Your task to perform on an android device: change the clock display to digital Image 0: 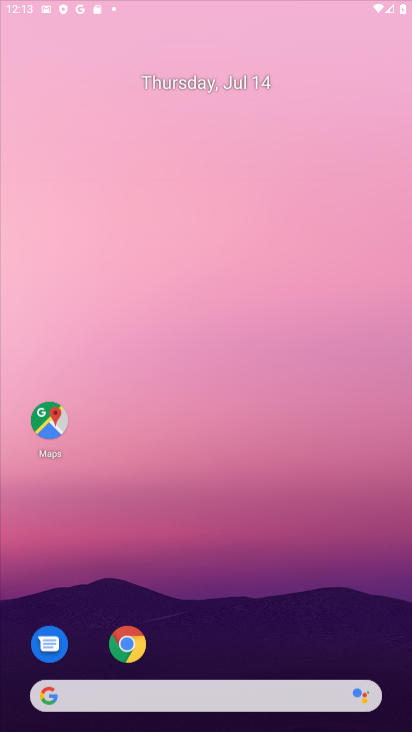
Step 0: click (281, 273)
Your task to perform on an android device: change the clock display to digital Image 1: 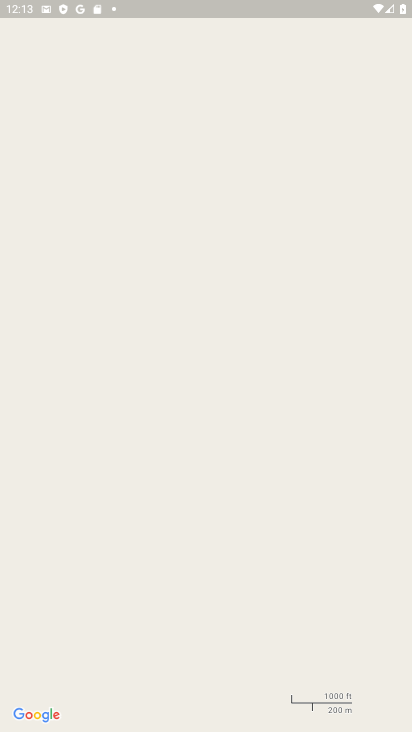
Step 1: press home button
Your task to perform on an android device: change the clock display to digital Image 2: 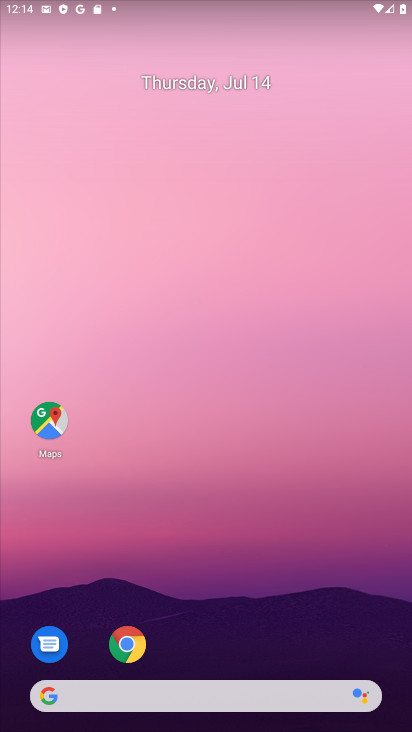
Step 2: drag from (233, 639) to (343, 17)
Your task to perform on an android device: change the clock display to digital Image 3: 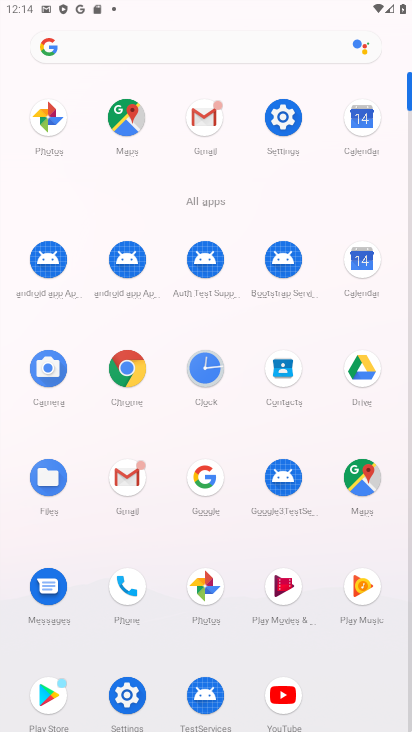
Step 3: click (207, 365)
Your task to perform on an android device: change the clock display to digital Image 4: 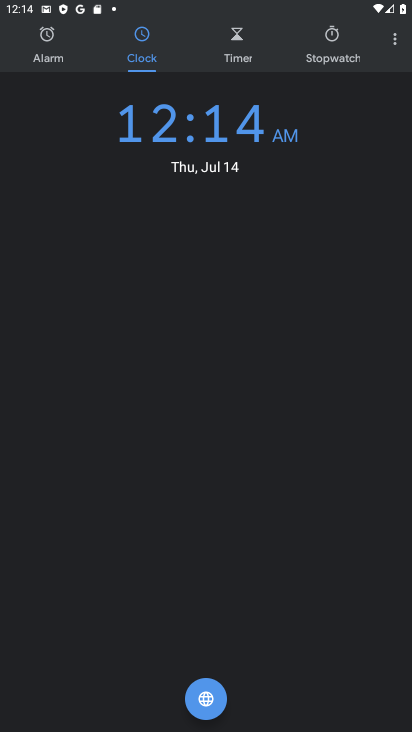
Step 4: click (383, 38)
Your task to perform on an android device: change the clock display to digital Image 5: 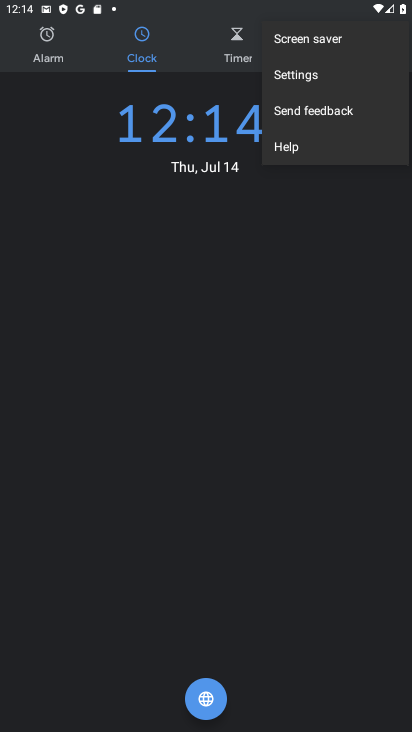
Step 5: click (310, 72)
Your task to perform on an android device: change the clock display to digital Image 6: 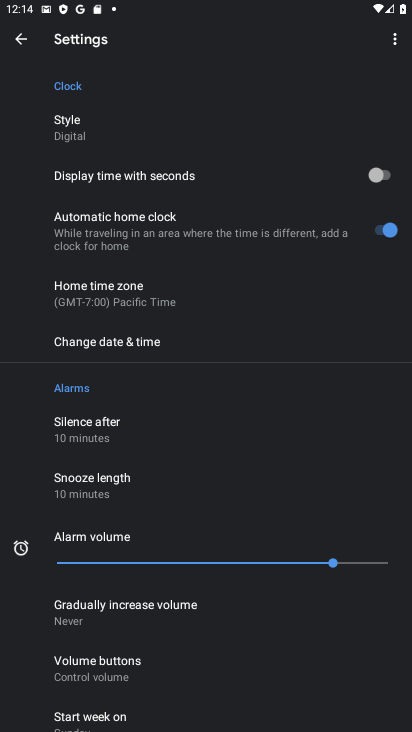
Step 6: click (77, 138)
Your task to perform on an android device: change the clock display to digital Image 7: 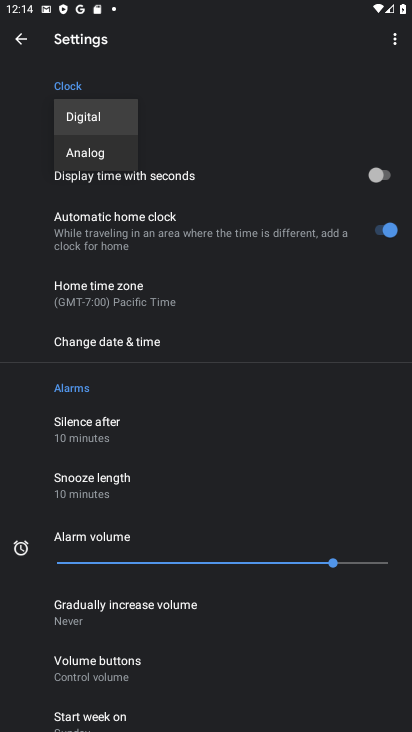
Step 7: click (87, 120)
Your task to perform on an android device: change the clock display to digital Image 8: 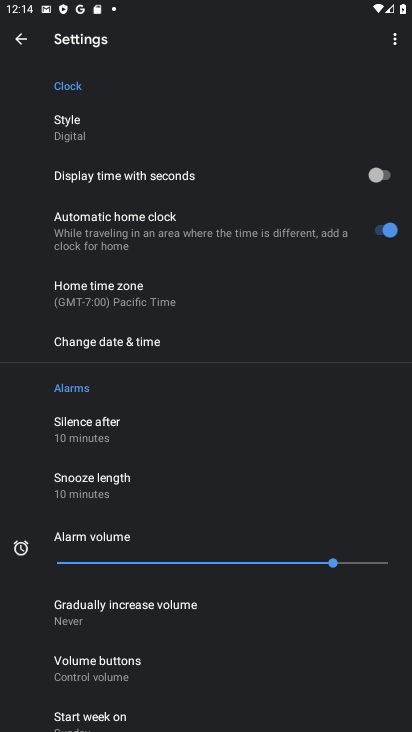
Step 8: task complete